Your task to perform on an android device: Open calendar and show me the first week of next month Image 0: 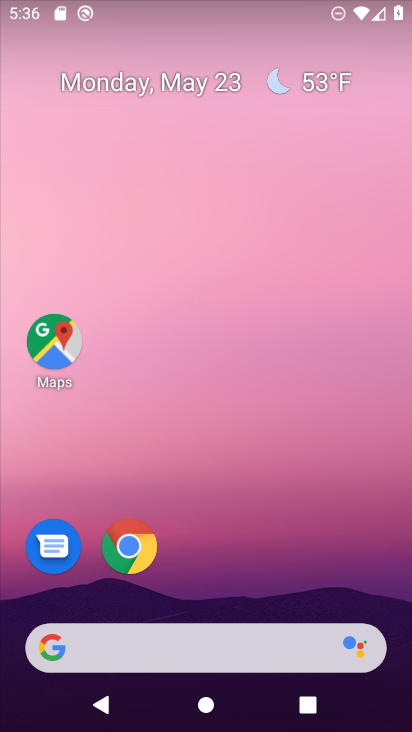
Step 0: click (190, 75)
Your task to perform on an android device: Open calendar and show me the first week of next month Image 1: 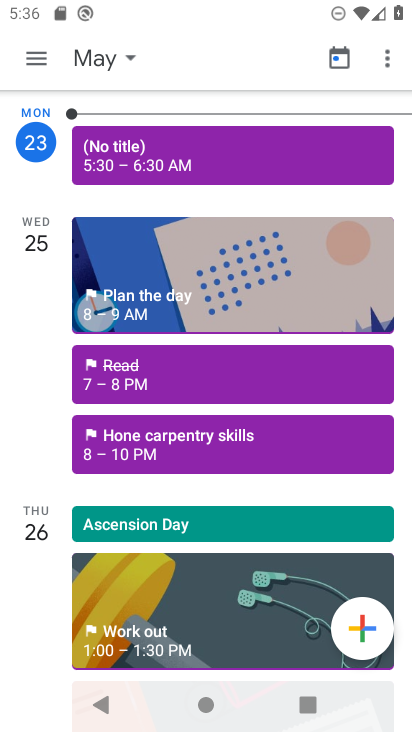
Step 1: click (112, 56)
Your task to perform on an android device: Open calendar and show me the first week of next month Image 2: 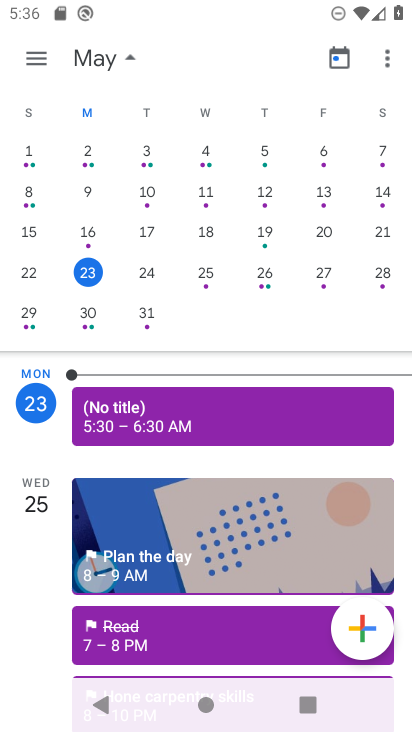
Step 2: drag from (331, 254) to (1, 227)
Your task to perform on an android device: Open calendar and show me the first week of next month Image 3: 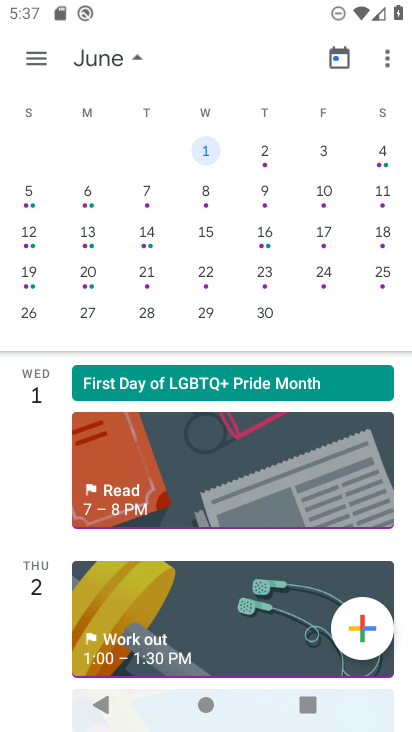
Step 3: click (265, 151)
Your task to perform on an android device: Open calendar and show me the first week of next month Image 4: 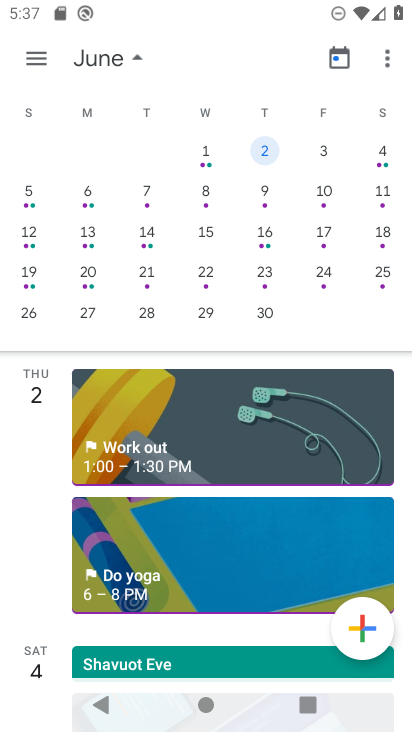
Step 4: click (41, 48)
Your task to perform on an android device: Open calendar and show me the first week of next month Image 5: 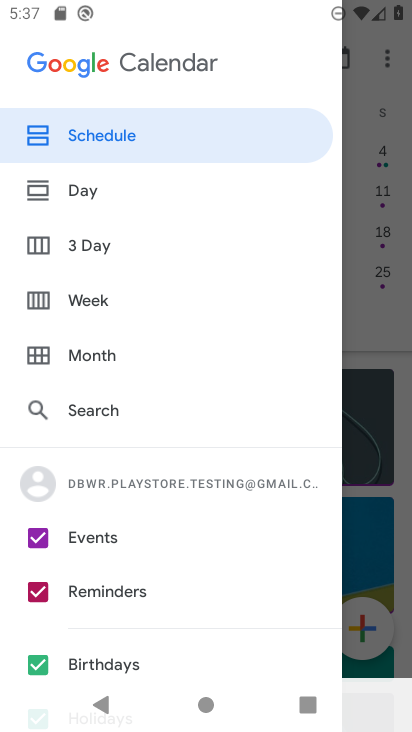
Step 5: click (83, 294)
Your task to perform on an android device: Open calendar and show me the first week of next month Image 6: 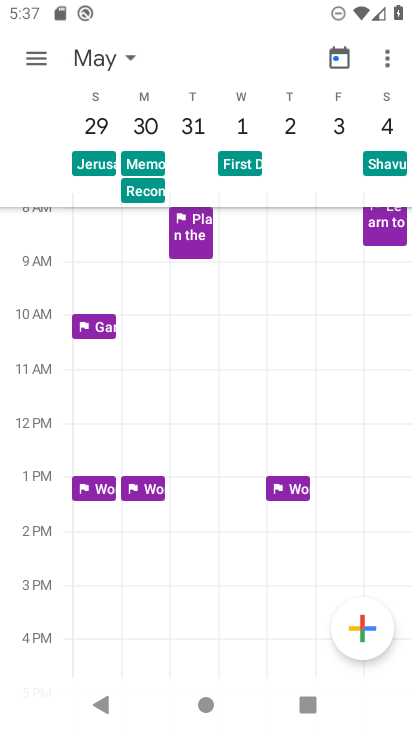
Step 6: click (134, 51)
Your task to perform on an android device: Open calendar and show me the first week of next month Image 7: 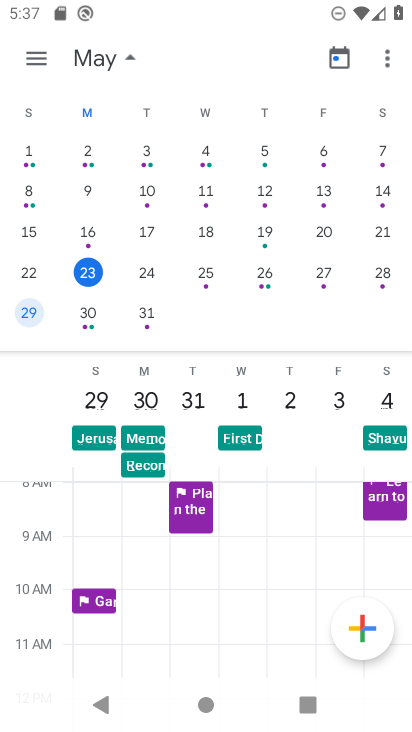
Step 7: drag from (330, 209) to (60, 228)
Your task to perform on an android device: Open calendar and show me the first week of next month Image 8: 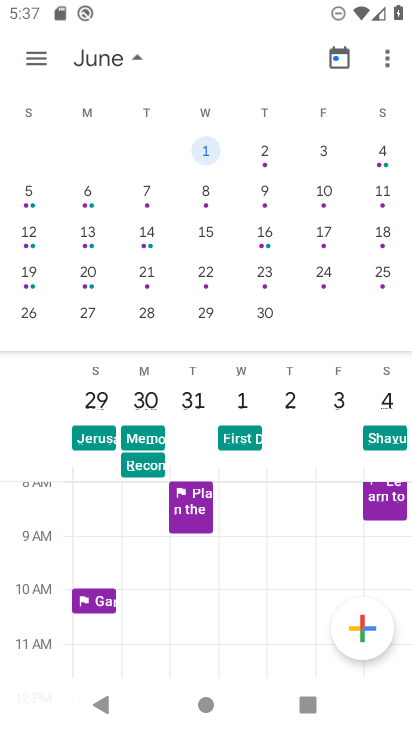
Step 8: click (262, 147)
Your task to perform on an android device: Open calendar and show me the first week of next month Image 9: 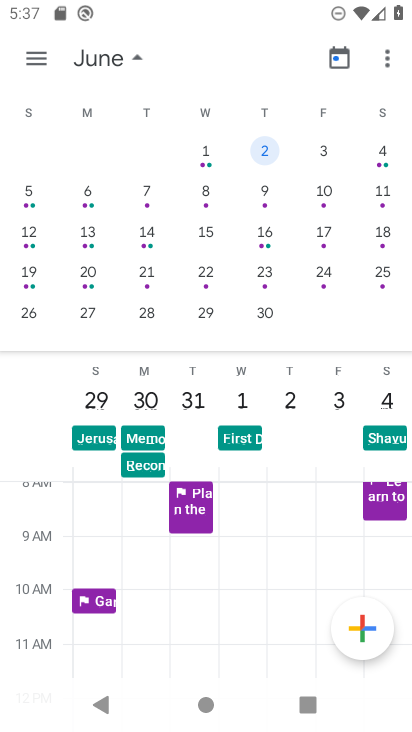
Step 9: task complete